Your task to perform on an android device: What's the weather going to be this weekend? Image 0: 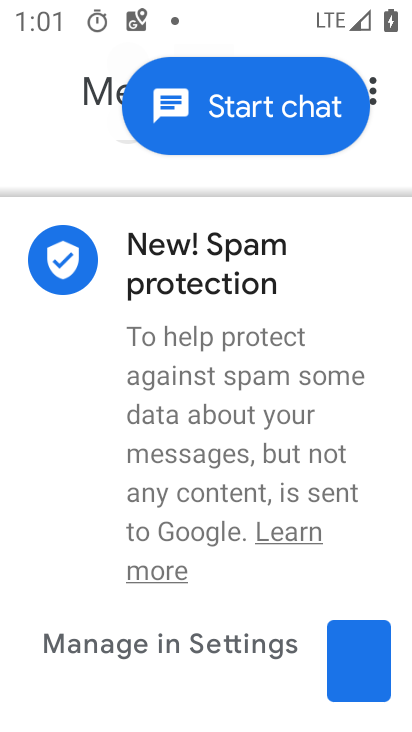
Step 0: press home button
Your task to perform on an android device: What's the weather going to be this weekend? Image 1: 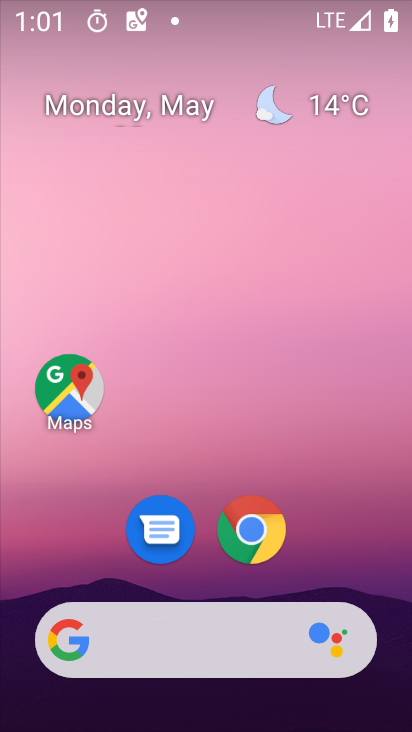
Step 1: click (187, 650)
Your task to perform on an android device: What's the weather going to be this weekend? Image 2: 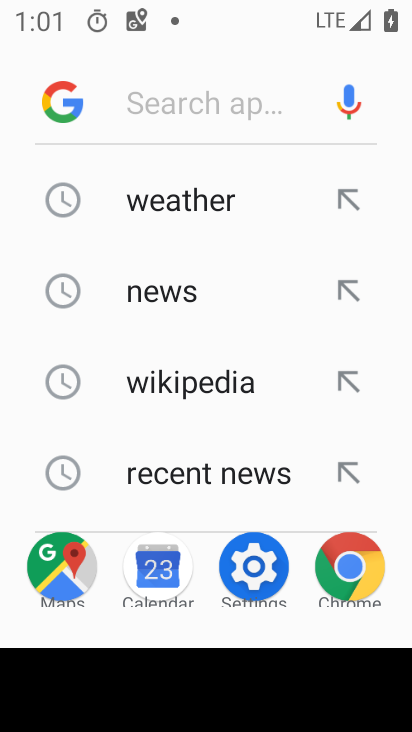
Step 2: click (233, 216)
Your task to perform on an android device: What's the weather going to be this weekend? Image 3: 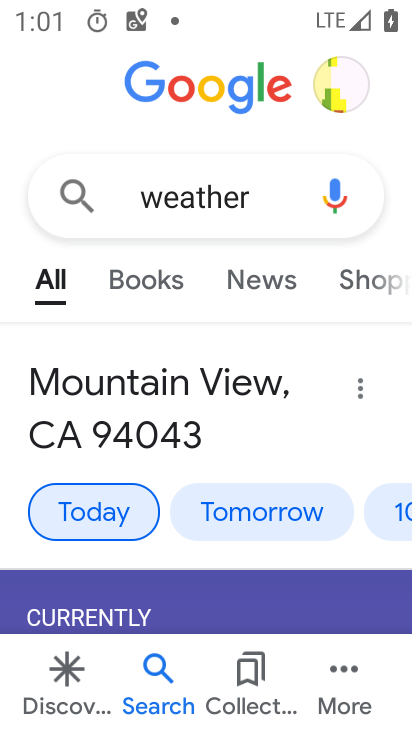
Step 3: click (393, 516)
Your task to perform on an android device: What's the weather going to be this weekend? Image 4: 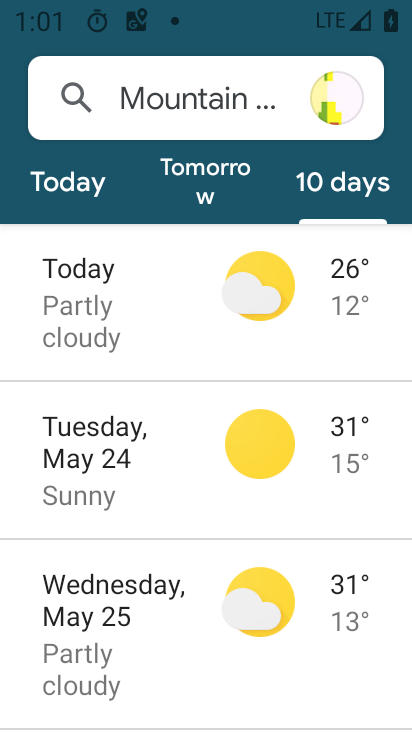
Step 4: drag from (318, 641) to (301, 486)
Your task to perform on an android device: What's the weather going to be this weekend? Image 5: 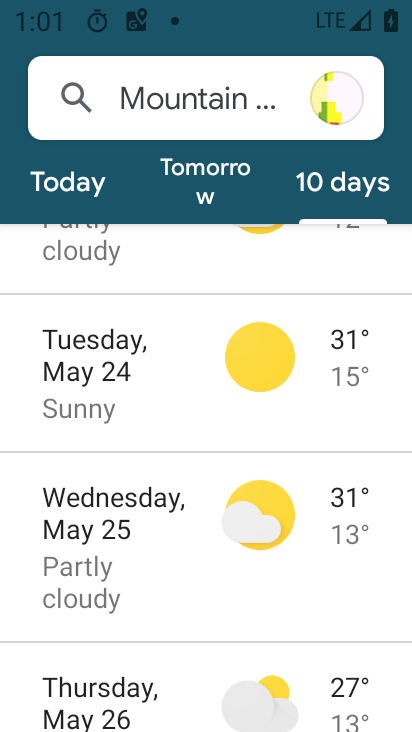
Step 5: drag from (301, 614) to (299, 502)
Your task to perform on an android device: What's the weather going to be this weekend? Image 6: 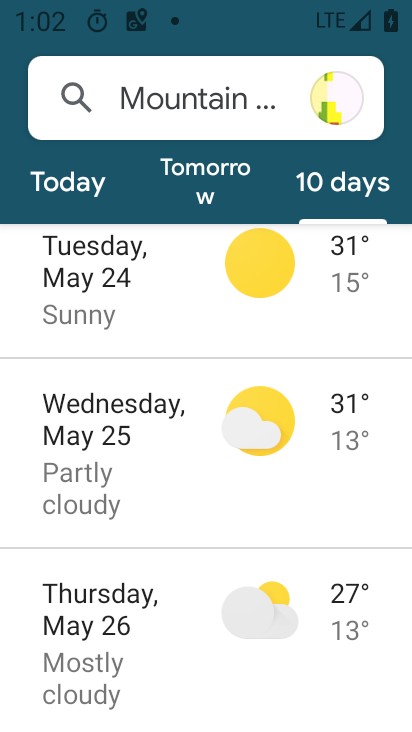
Step 6: drag from (298, 650) to (298, 508)
Your task to perform on an android device: What's the weather going to be this weekend? Image 7: 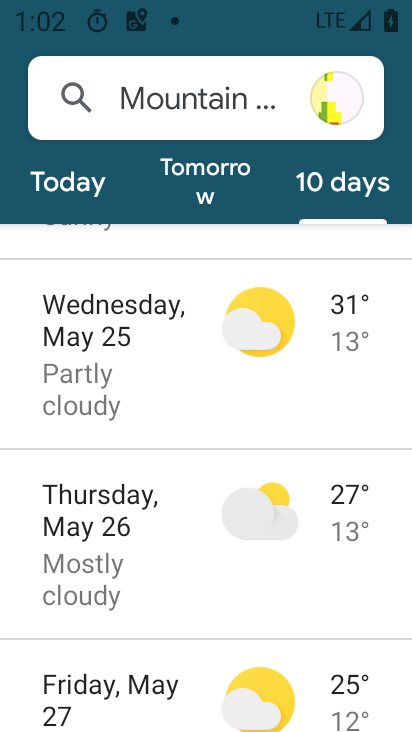
Step 7: drag from (300, 647) to (306, 509)
Your task to perform on an android device: What's the weather going to be this weekend? Image 8: 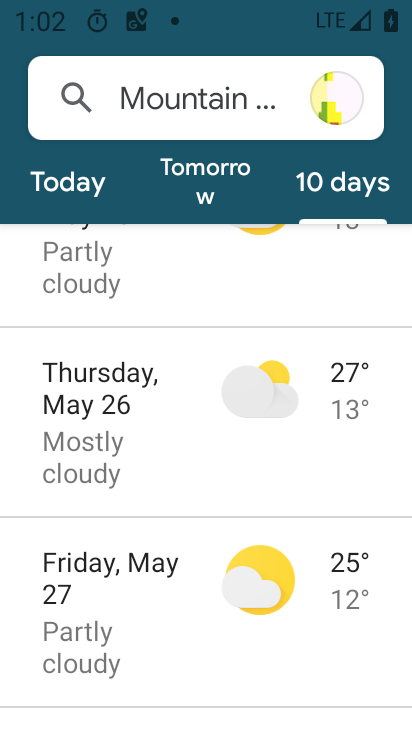
Step 8: drag from (308, 663) to (304, 547)
Your task to perform on an android device: What's the weather going to be this weekend? Image 9: 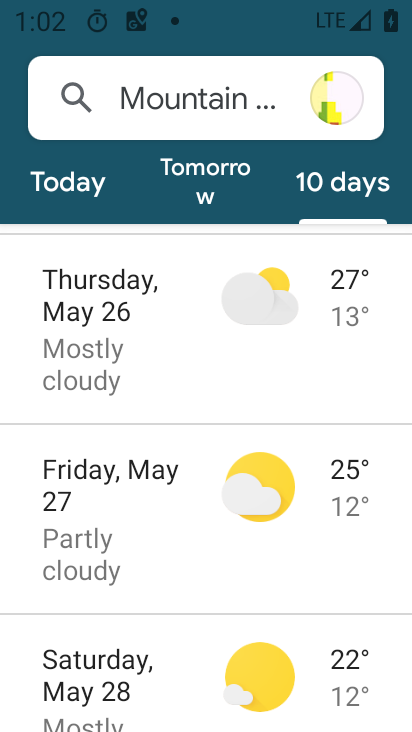
Step 9: drag from (302, 662) to (305, 532)
Your task to perform on an android device: What's the weather going to be this weekend? Image 10: 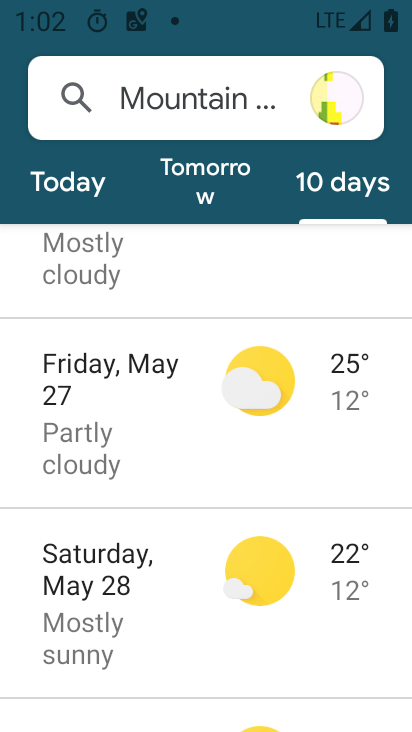
Step 10: drag from (316, 655) to (308, 563)
Your task to perform on an android device: What's the weather going to be this weekend? Image 11: 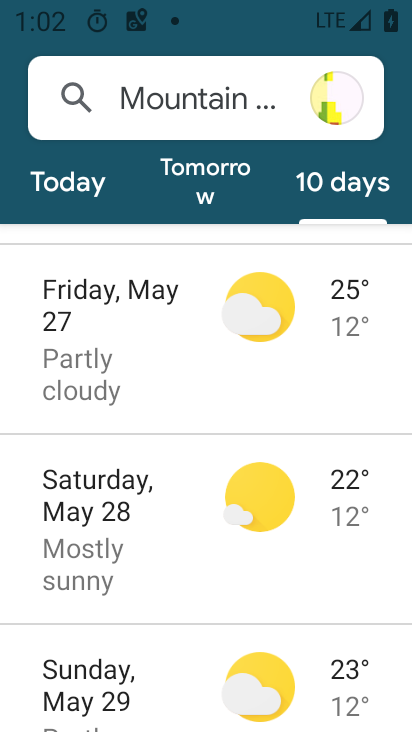
Step 11: drag from (305, 657) to (295, 412)
Your task to perform on an android device: What's the weather going to be this weekend? Image 12: 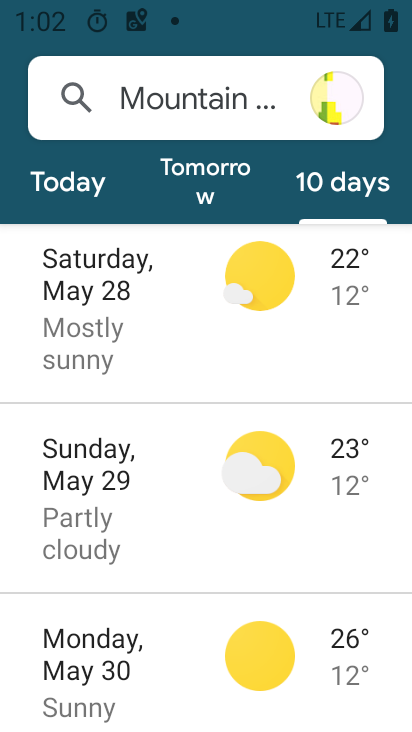
Step 12: click (246, 372)
Your task to perform on an android device: What's the weather going to be this weekend? Image 13: 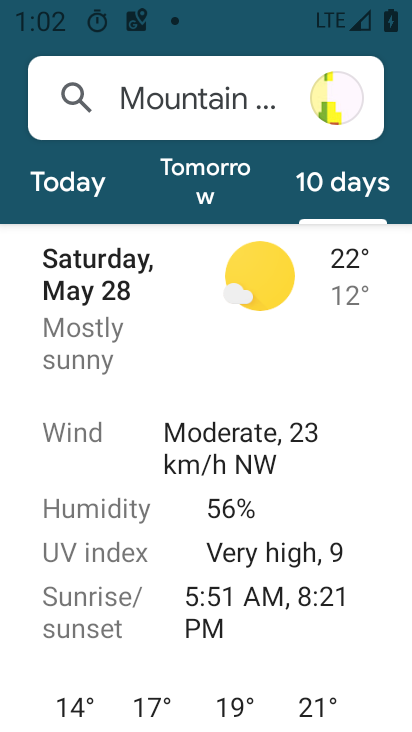
Step 13: task complete